Your task to perform on an android device: check out phone information Image 0: 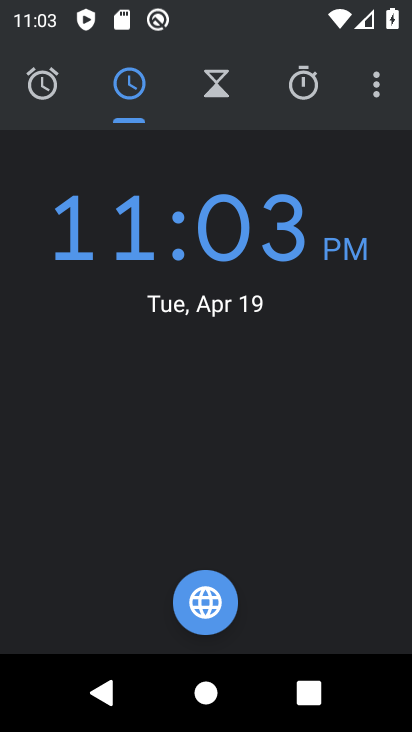
Step 0: press back button
Your task to perform on an android device: check out phone information Image 1: 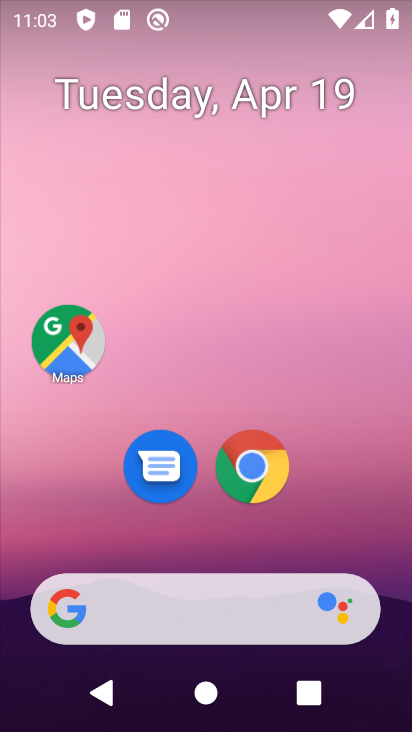
Step 1: drag from (173, 571) to (386, 83)
Your task to perform on an android device: check out phone information Image 2: 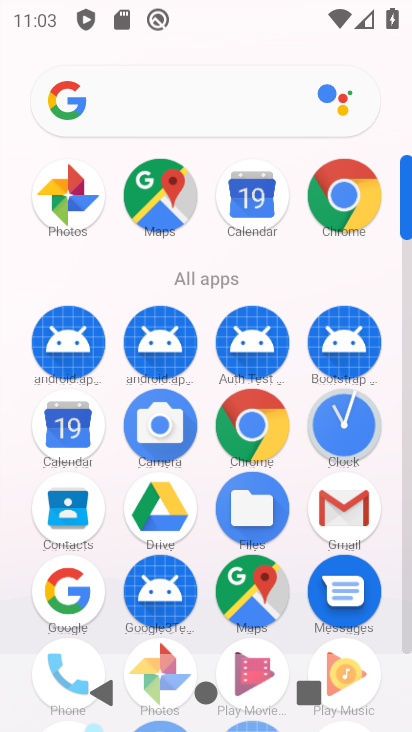
Step 2: drag from (161, 634) to (326, 262)
Your task to perform on an android device: check out phone information Image 3: 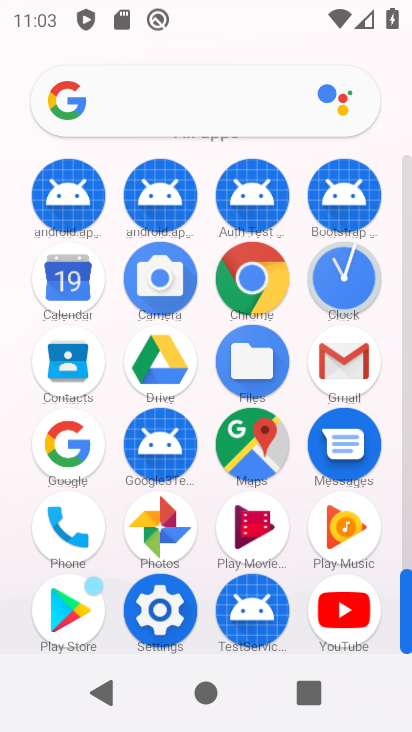
Step 3: click (155, 601)
Your task to perform on an android device: check out phone information Image 4: 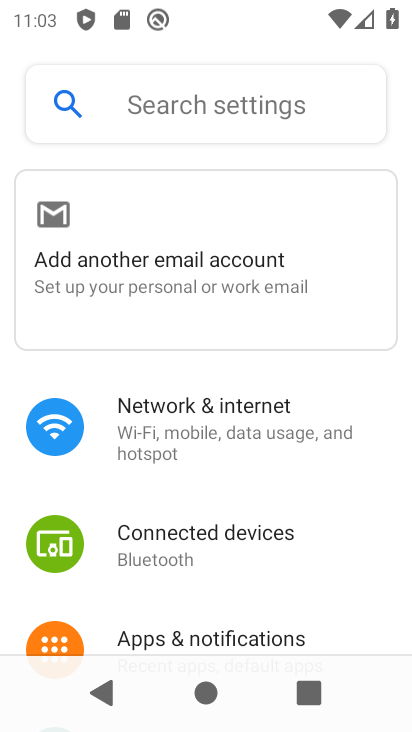
Step 4: drag from (252, 585) to (405, 309)
Your task to perform on an android device: check out phone information Image 5: 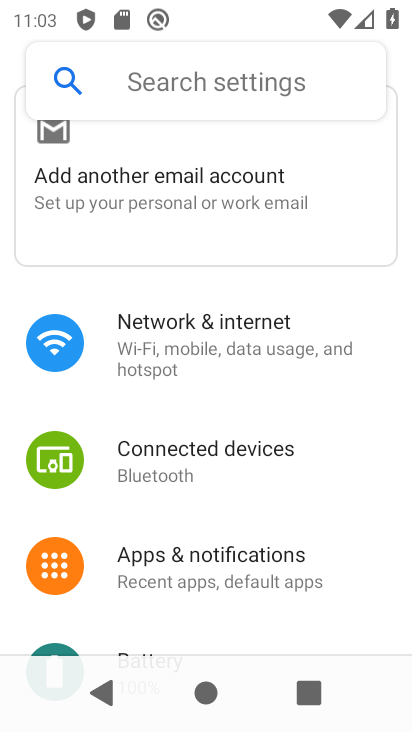
Step 5: drag from (302, 494) to (412, 142)
Your task to perform on an android device: check out phone information Image 6: 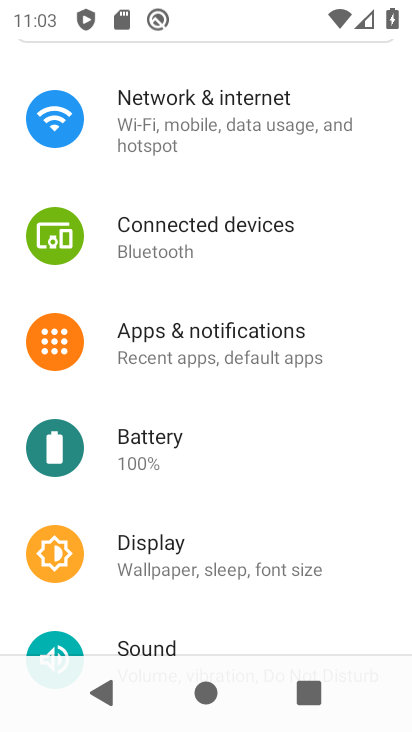
Step 6: drag from (256, 555) to (400, 217)
Your task to perform on an android device: check out phone information Image 7: 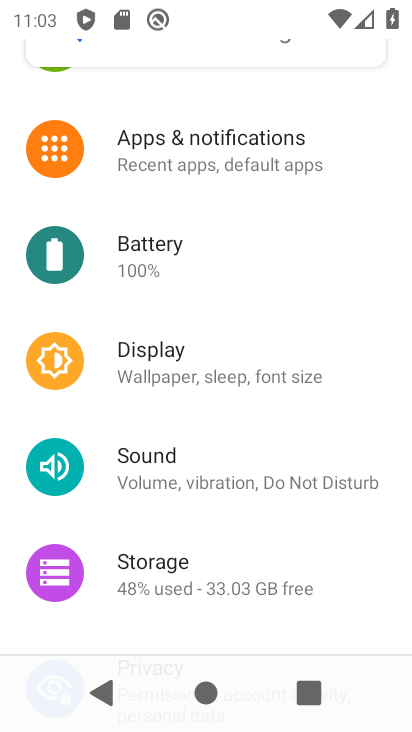
Step 7: drag from (152, 589) to (362, 165)
Your task to perform on an android device: check out phone information Image 8: 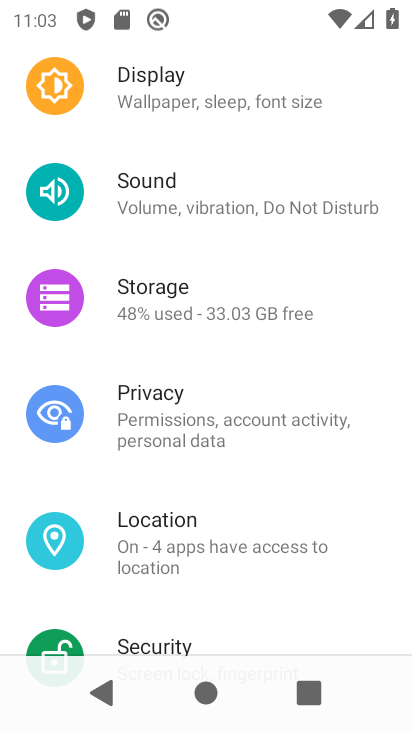
Step 8: drag from (265, 661) to (409, 193)
Your task to perform on an android device: check out phone information Image 9: 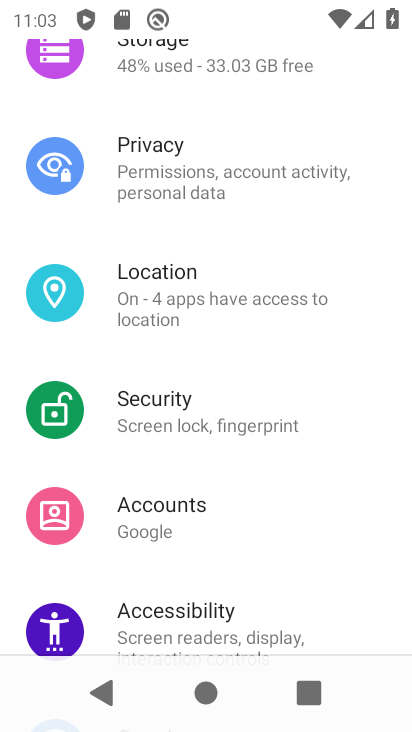
Step 9: drag from (213, 618) to (350, 220)
Your task to perform on an android device: check out phone information Image 10: 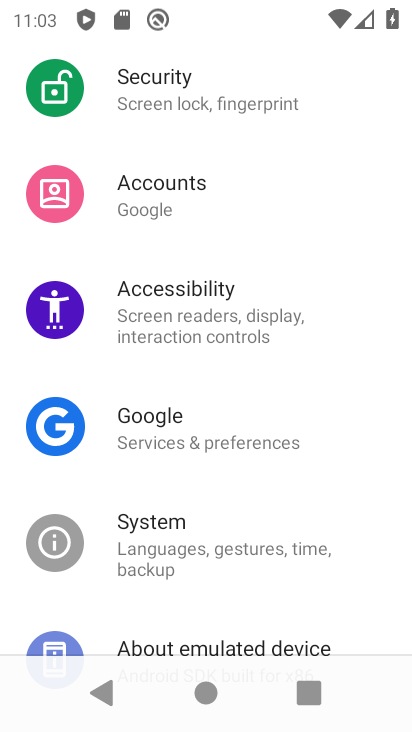
Step 10: drag from (272, 519) to (410, 194)
Your task to perform on an android device: check out phone information Image 11: 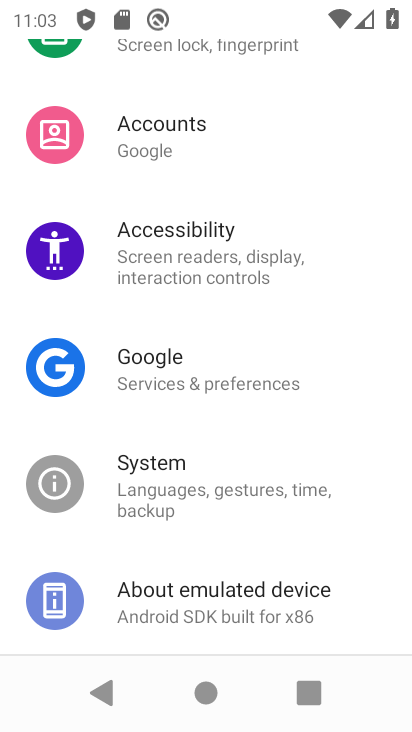
Step 11: click (276, 617)
Your task to perform on an android device: check out phone information Image 12: 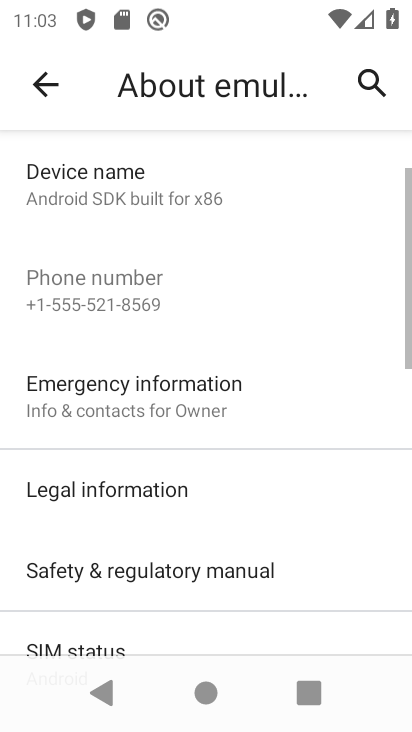
Step 12: task complete